Your task to perform on an android device: Go to display settings Image 0: 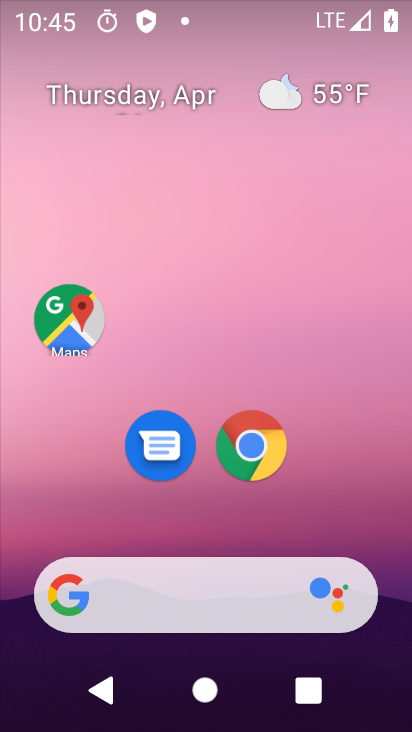
Step 0: drag from (386, 568) to (410, 11)
Your task to perform on an android device: Go to display settings Image 1: 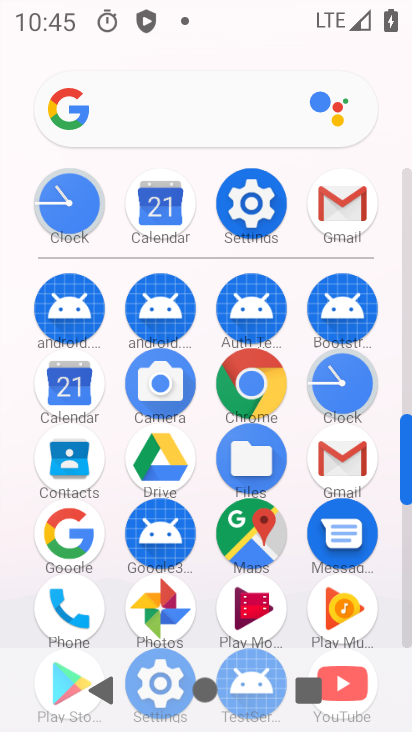
Step 1: click (244, 217)
Your task to perform on an android device: Go to display settings Image 2: 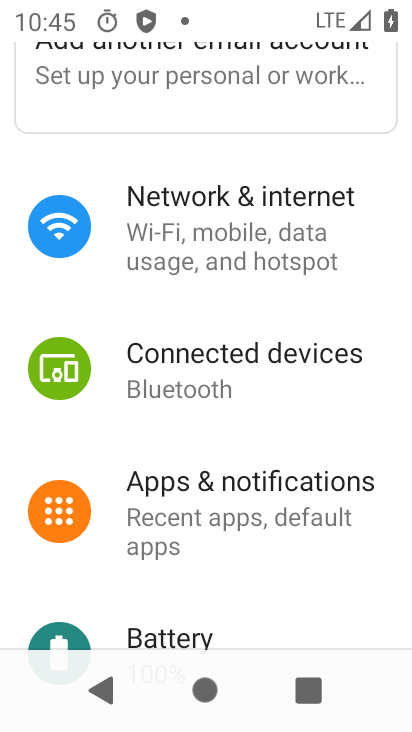
Step 2: drag from (268, 583) to (291, 240)
Your task to perform on an android device: Go to display settings Image 3: 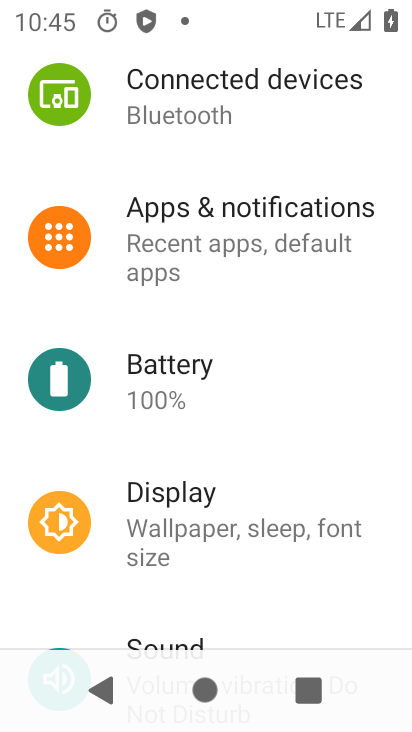
Step 3: click (148, 512)
Your task to perform on an android device: Go to display settings Image 4: 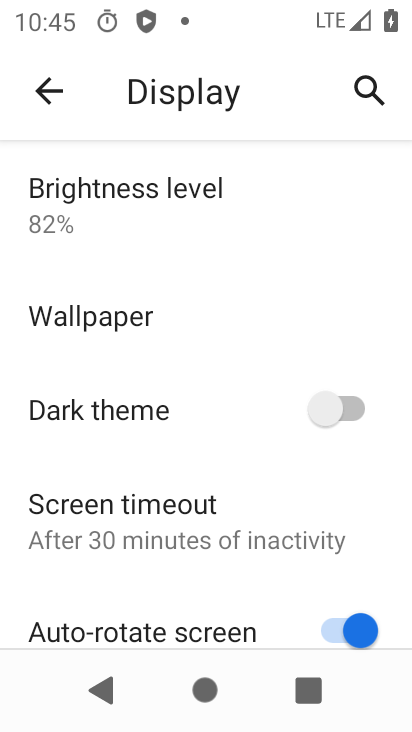
Step 4: task complete